Your task to perform on an android device: Is it going to rain this weekend? Image 0: 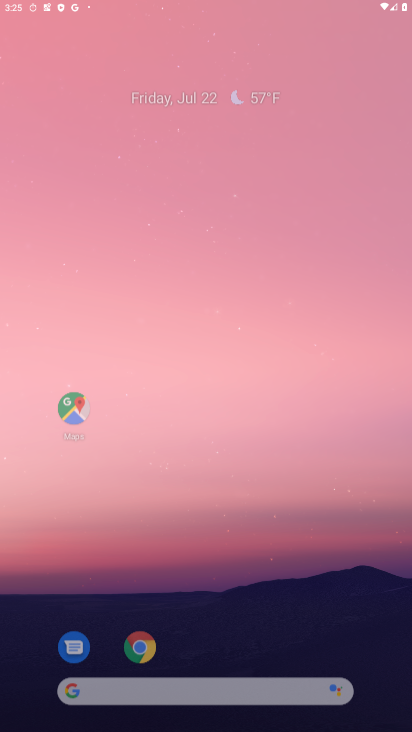
Step 0: press home button
Your task to perform on an android device: Is it going to rain this weekend? Image 1: 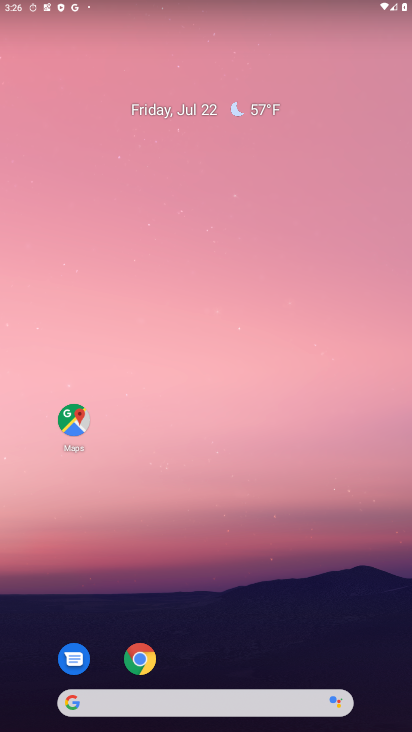
Step 1: click (216, 703)
Your task to perform on an android device: Is it going to rain this weekend? Image 2: 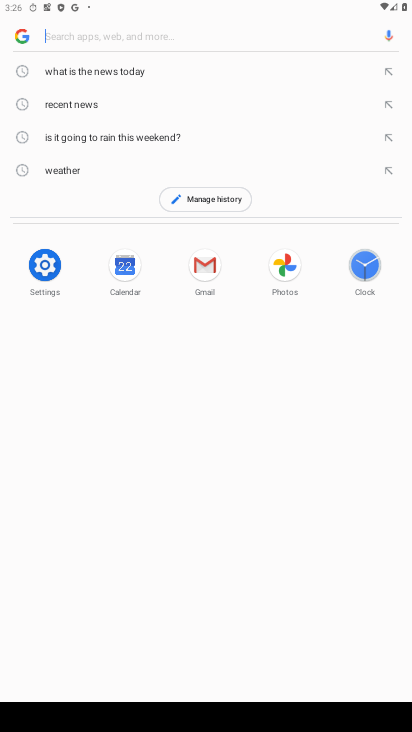
Step 2: type "is it going to rain this weekend"
Your task to perform on an android device: Is it going to rain this weekend? Image 3: 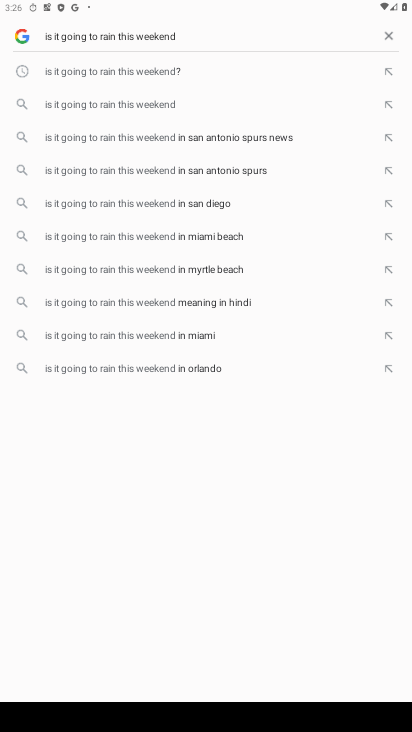
Step 3: click (171, 70)
Your task to perform on an android device: Is it going to rain this weekend? Image 4: 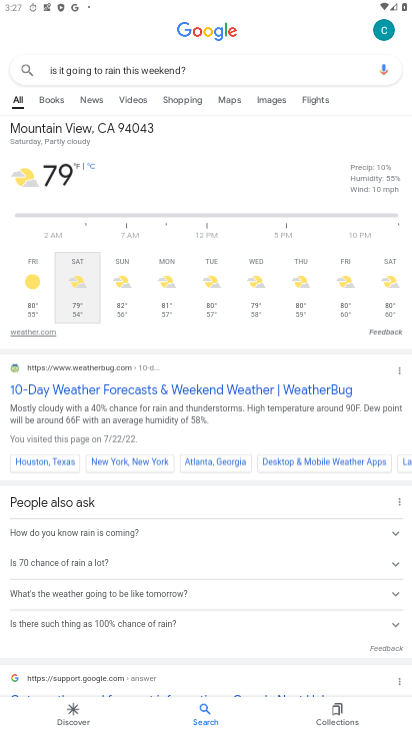
Step 4: task complete